Your task to perform on an android device: set the timer Image 0: 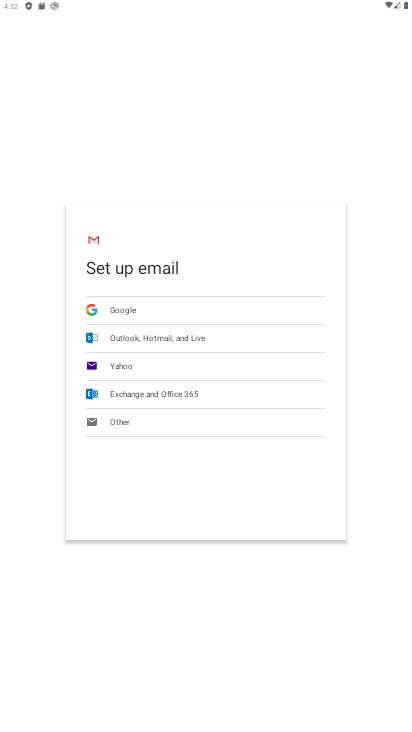
Step 0: press back button
Your task to perform on an android device: set the timer Image 1: 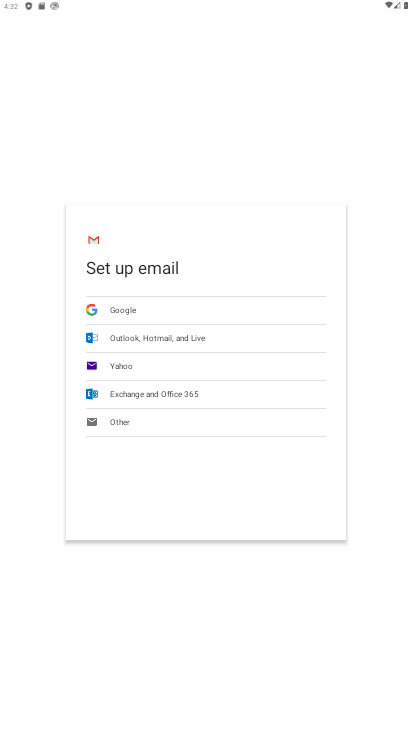
Step 1: press back button
Your task to perform on an android device: set the timer Image 2: 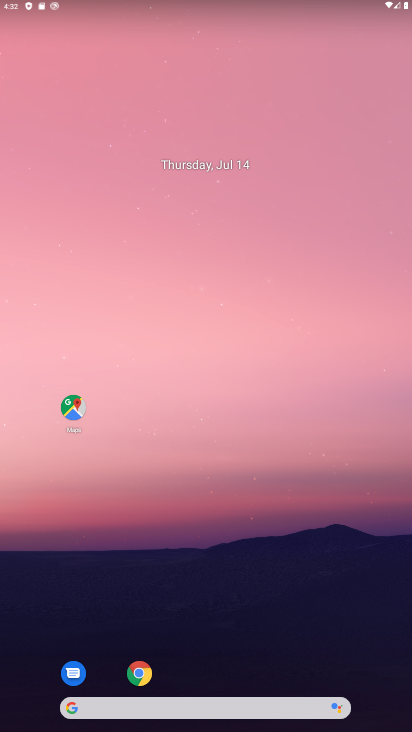
Step 2: press back button
Your task to perform on an android device: set the timer Image 3: 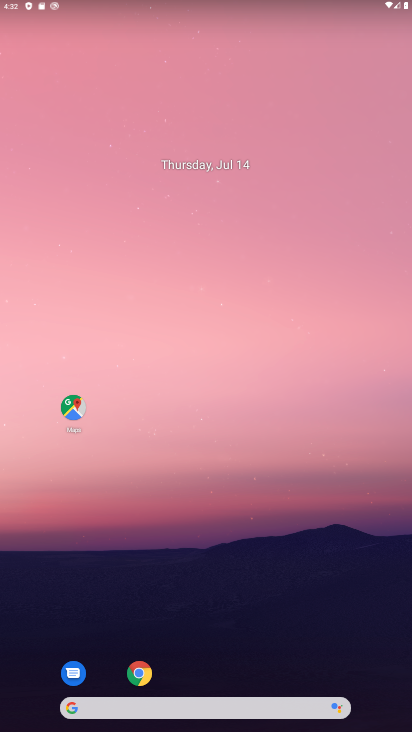
Step 3: press home button
Your task to perform on an android device: set the timer Image 4: 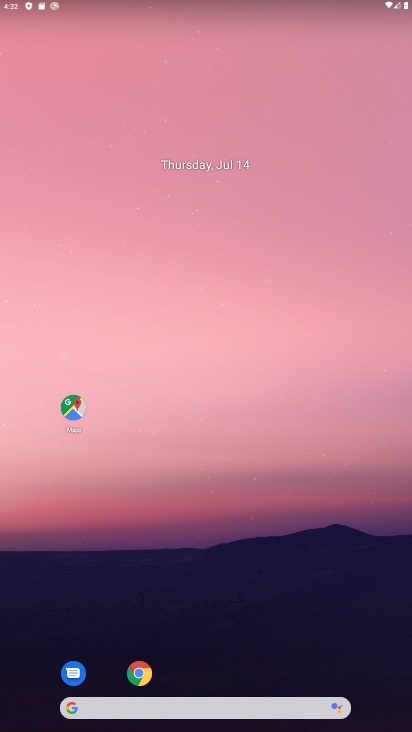
Step 4: click (183, 20)
Your task to perform on an android device: set the timer Image 5: 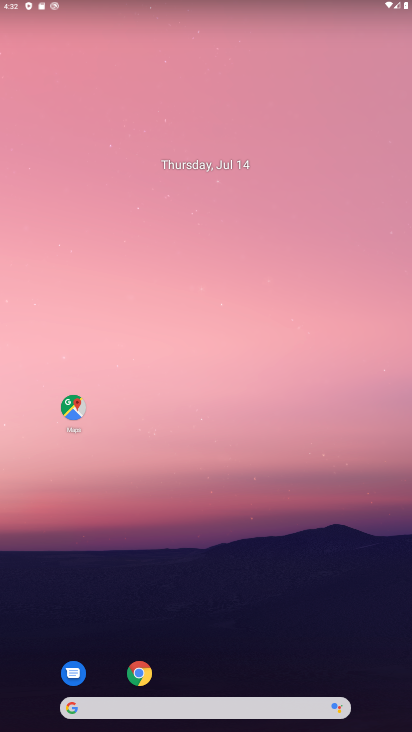
Step 5: drag from (261, 407) to (208, 82)
Your task to perform on an android device: set the timer Image 6: 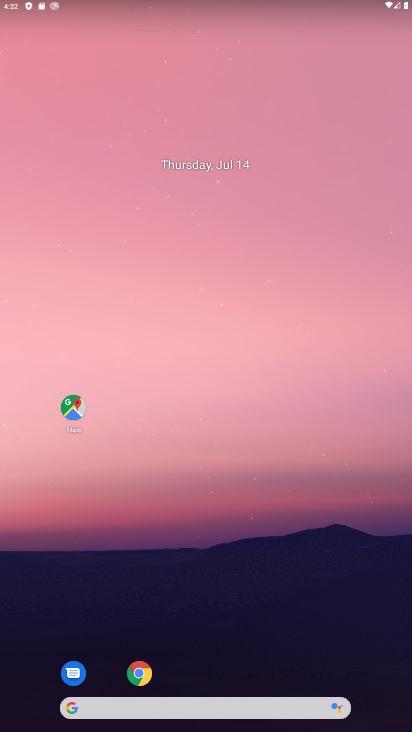
Step 6: drag from (275, 515) to (197, 22)
Your task to perform on an android device: set the timer Image 7: 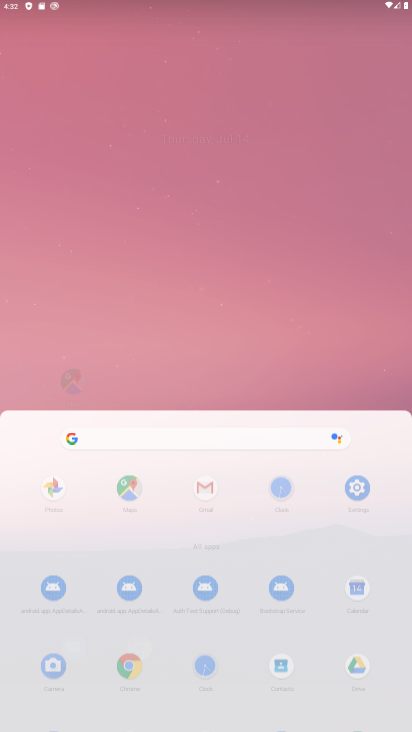
Step 7: drag from (180, 419) to (187, 85)
Your task to perform on an android device: set the timer Image 8: 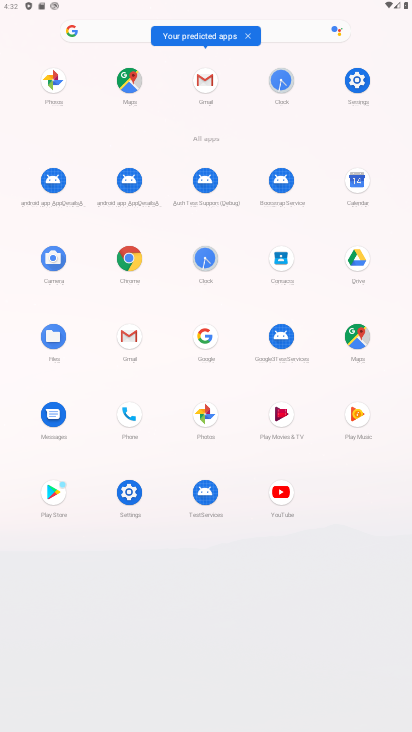
Step 8: click (198, 260)
Your task to perform on an android device: set the timer Image 9: 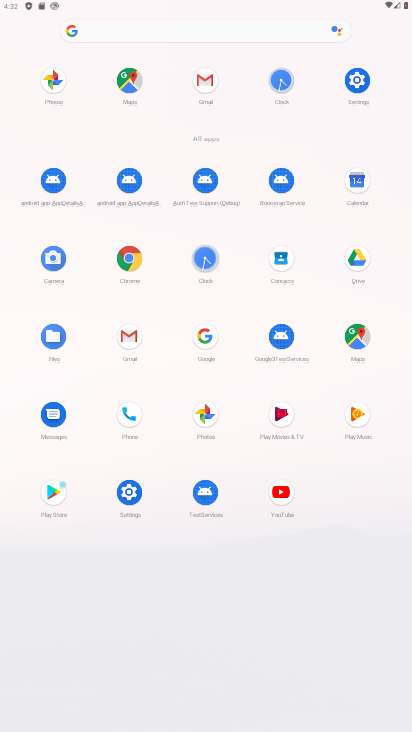
Step 9: click (199, 260)
Your task to perform on an android device: set the timer Image 10: 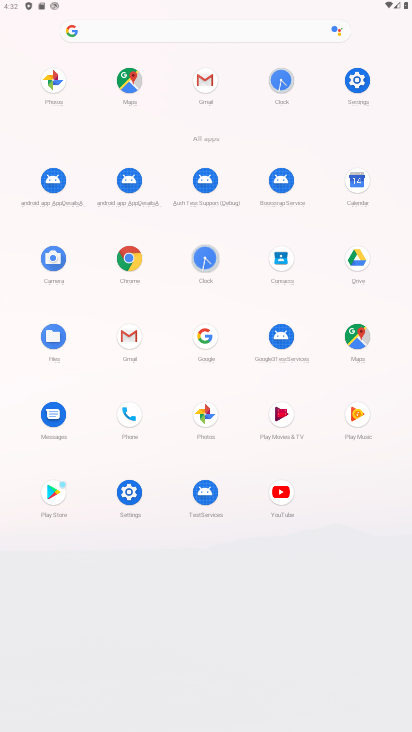
Step 10: click (199, 260)
Your task to perform on an android device: set the timer Image 11: 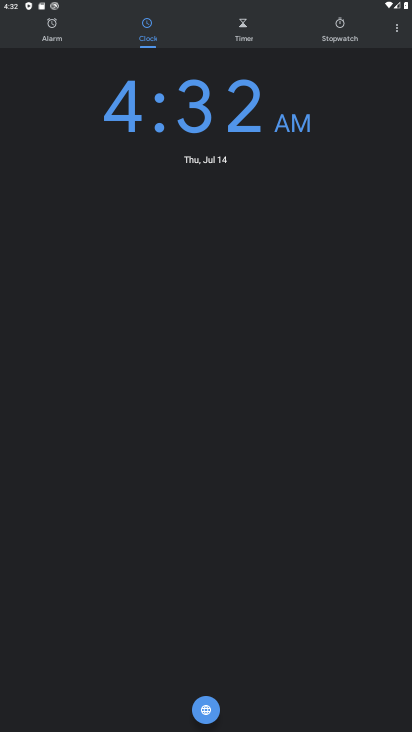
Step 11: click (252, 40)
Your task to perform on an android device: set the timer Image 12: 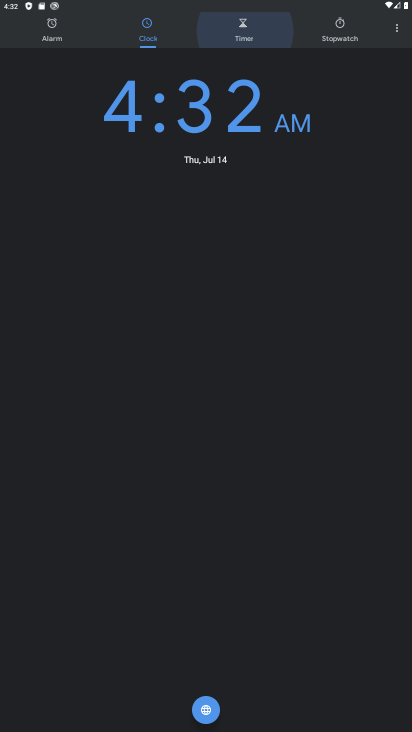
Step 12: click (250, 38)
Your task to perform on an android device: set the timer Image 13: 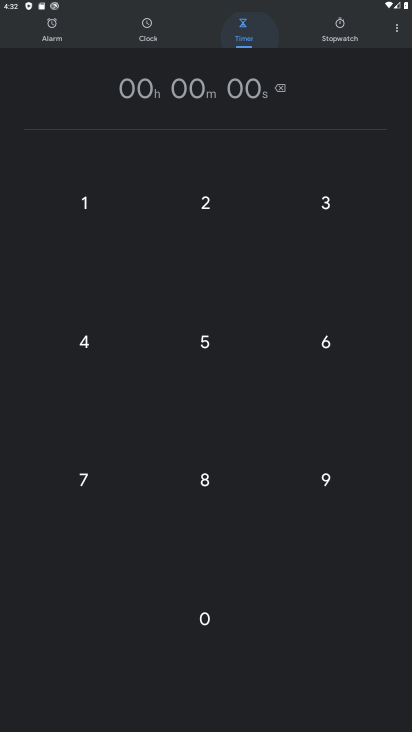
Step 13: click (248, 37)
Your task to perform on an android device: set the timer Image 14: 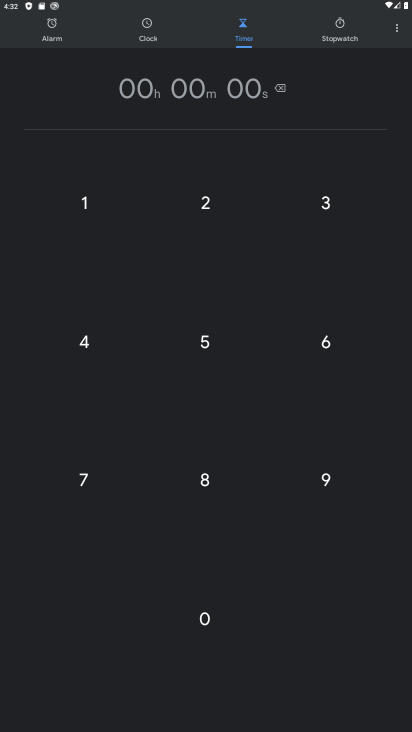
Step 14: click (204, 329)
Your task to perform on an android device: set the timer Image 15: 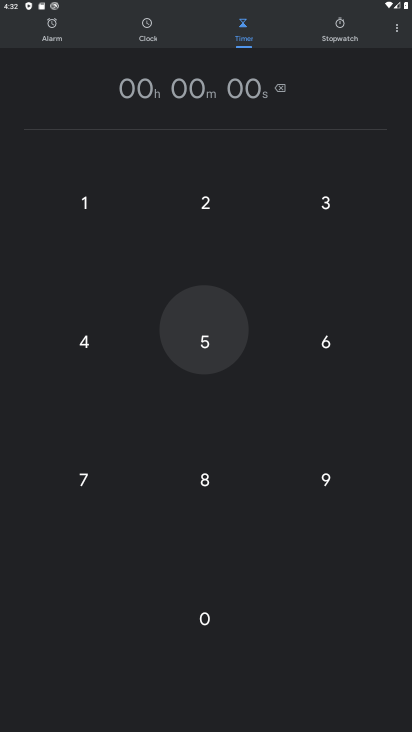
Step 15: click (204, 329)
Your task to perform on an android device: set the timer Image 16: 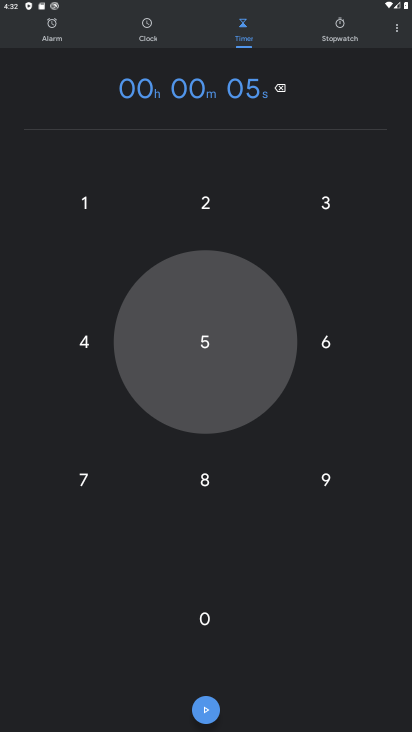
Step 16: click (206, 330)
Your task to perform on an android device: set the timer Image 17: 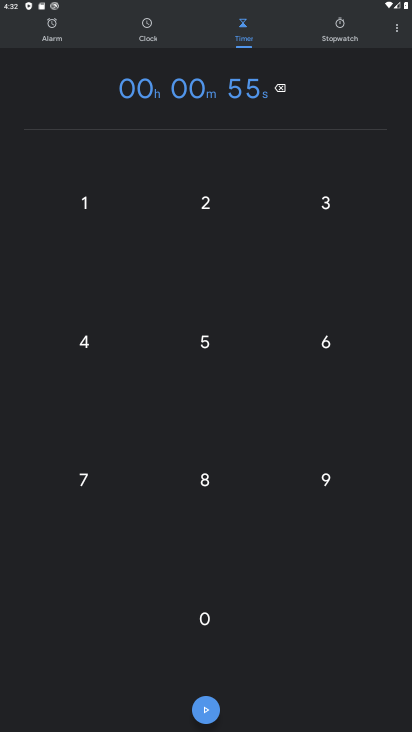
Step 17: click (211, 344)
Your task to perform on an android device: set the timer Image 18: 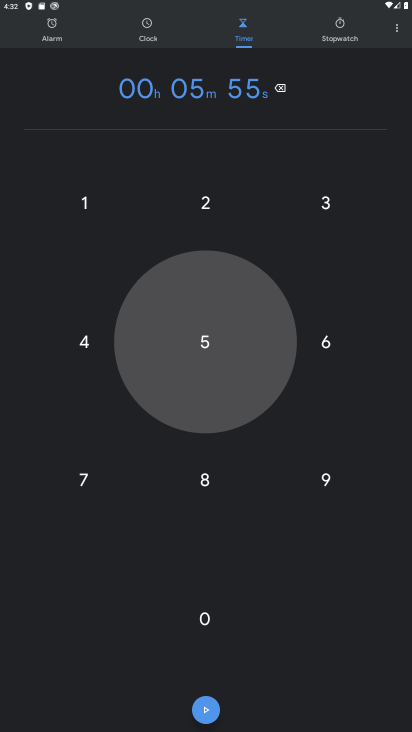
Step 18: drag from (213, 368) to (213, 419)
Your task to perform on an android device: set the timer Image 19: 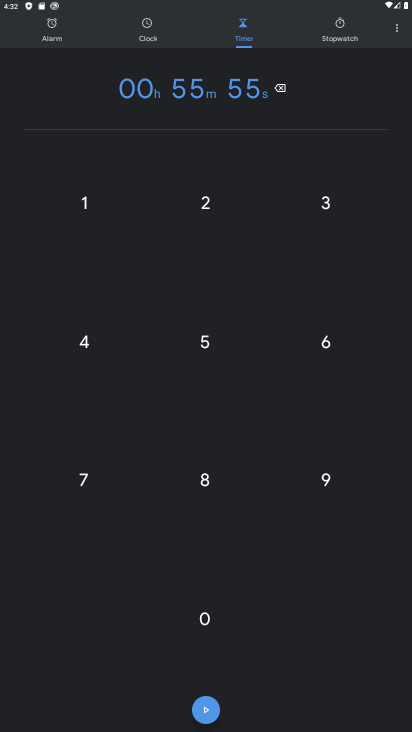
Step 19: click (205, 713)
Your task to perform on an android device: set the timer Image 20: 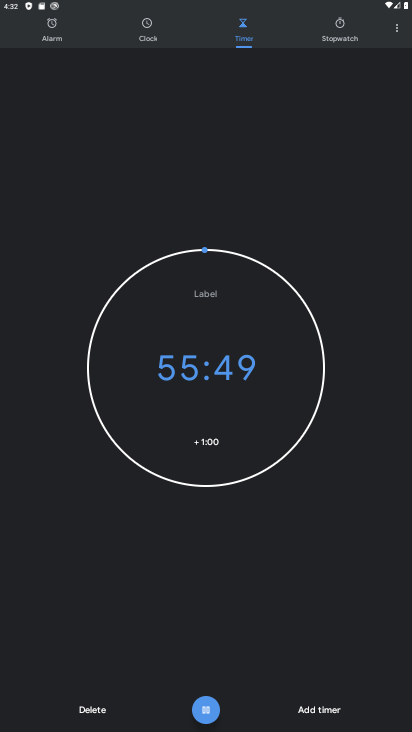
Step 20: click (321, 724)
Your task to perform on an android device: set the timer Image 21: 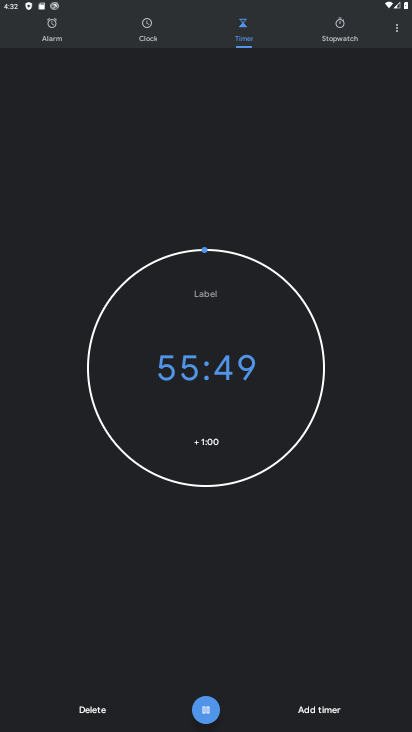
Step 21: click (321, 724)
Your task to perform on an android device: set the timer Image 22: 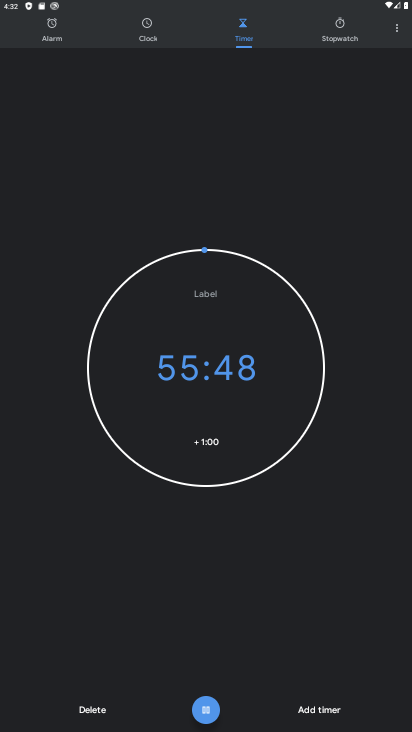
Step 22: click (321, 723)
Your task to perform on an android device: set the timer Image 23: 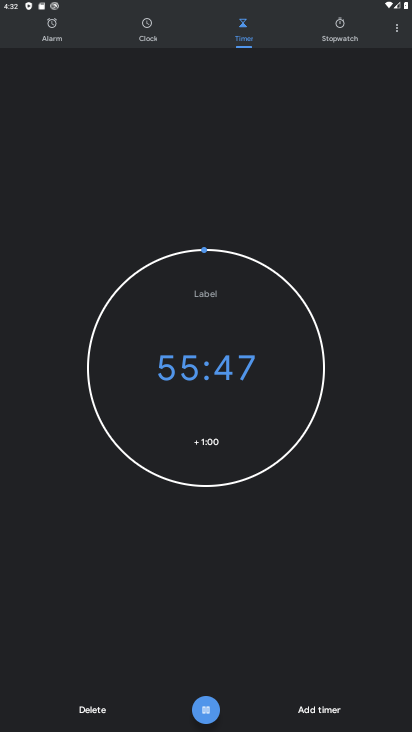
Step 23: click (209, 707)
Your task to perform on an android device: set the timer Image 24: 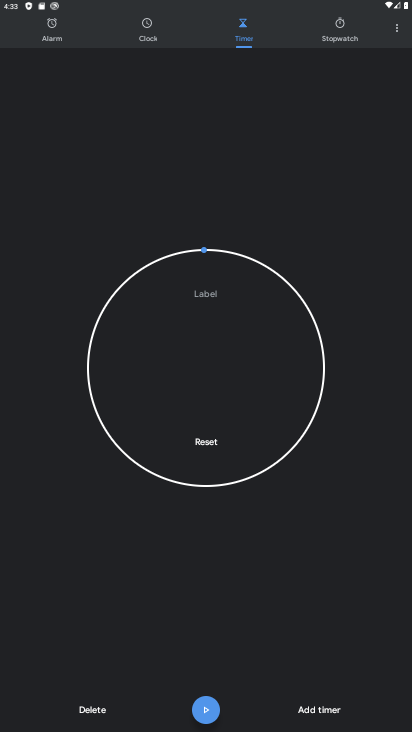
Step 24: task complete